Your task to perform on an android device: Show the shopping cart on ebay. Add macbook to the cart on ebay Image 0: 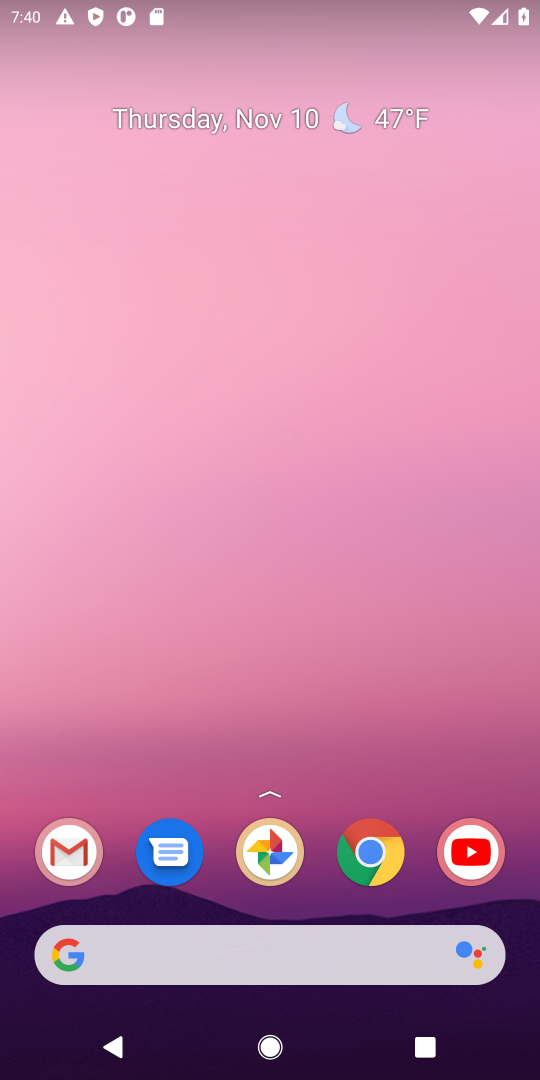
Step 0: click (382, 863)
Your task to perform on an android device: Show the shopping cart on ebay. Add macbook to the cart on ebay Image 1: 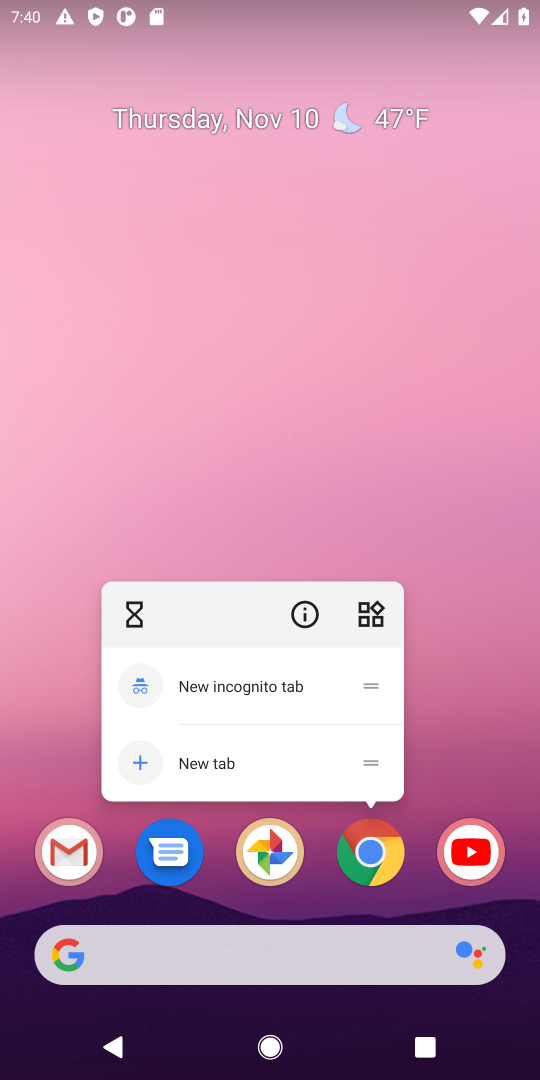
Step 1: click (372, 853)
Your task to perform on an android device: Show the shopping cart on ebay. Add macbook to the cart on ebay Image 2: 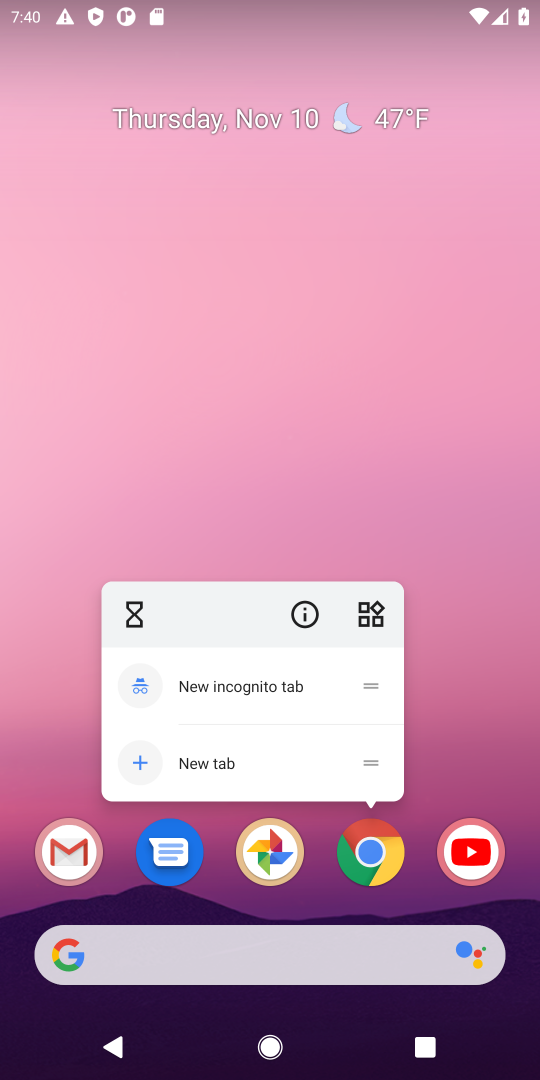
Step 2: click (365, 853)
Your task to perform on an android device: Show the shopping cart on ebay. Add macbook to the cart on ebay Image 3: 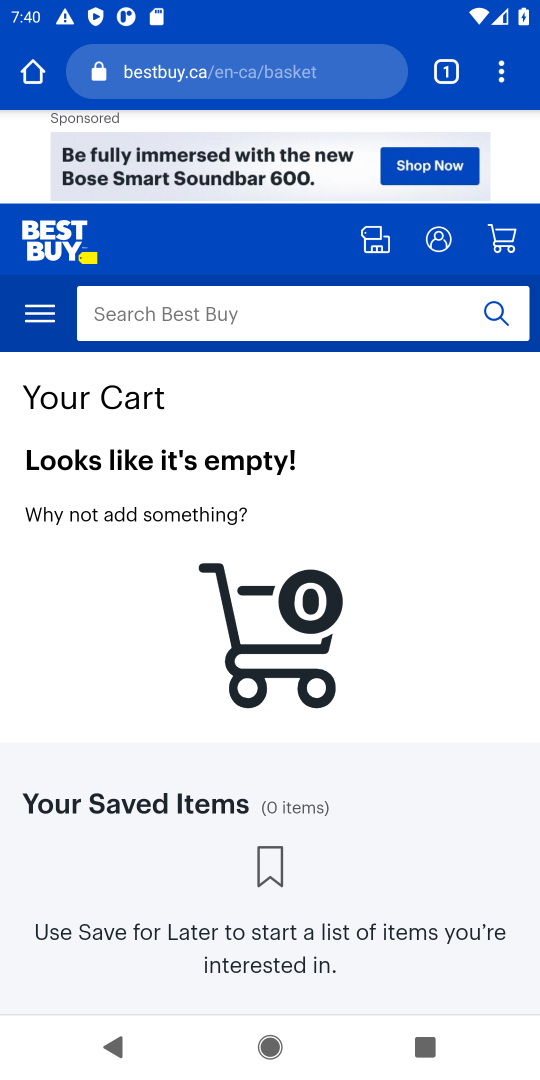
Step 3: click (314, 66)
Your task to perform on an android device: Show the shopping cart on ebay. Add macbook to the cart on ebay Image 4: 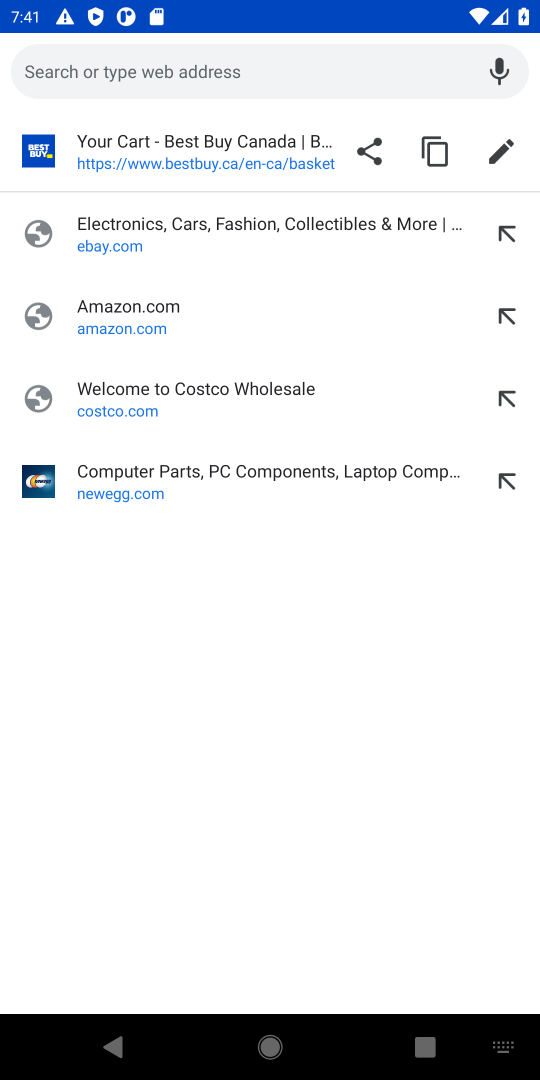
Step 4: type "ebay"
Your task to perform on an android device: Show the shopping cart on ebay. Add macbook to the cart on ebay Image 5: 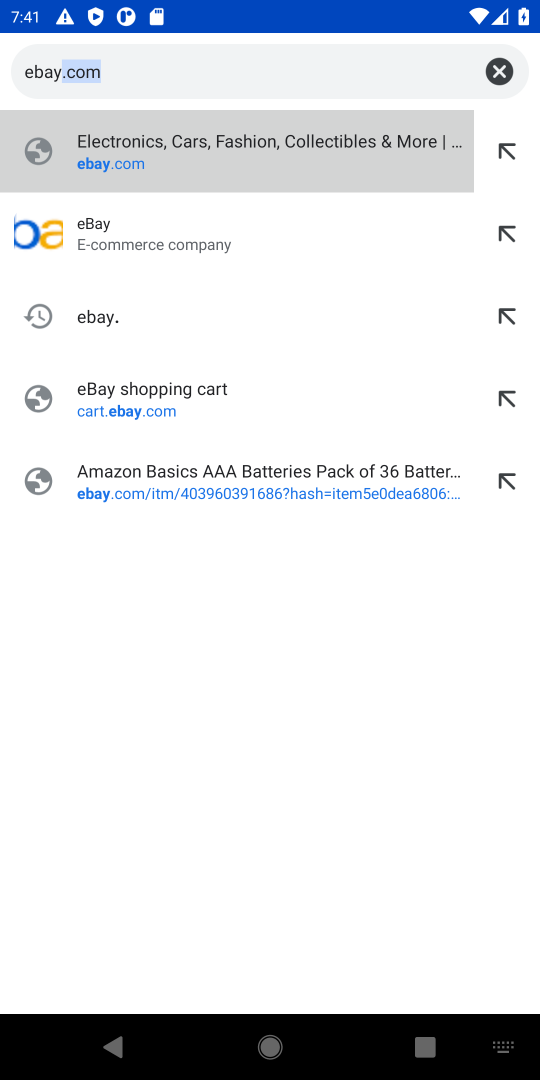
Step 5: press enter
Your task to perform on an android device: Show the shopping cart on ebay. Add macbook to the cart on ebay Image 6: 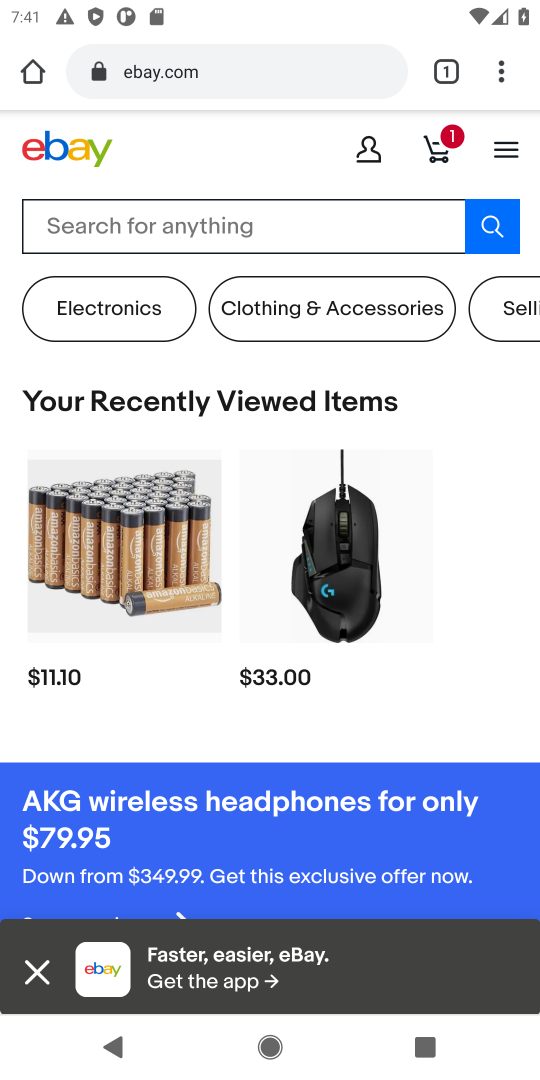
Step 6: click (234, 229)
Your task to perform on an android device: Show the shopping cart on ebay. Add macbook to the cart on ebay Image 7: 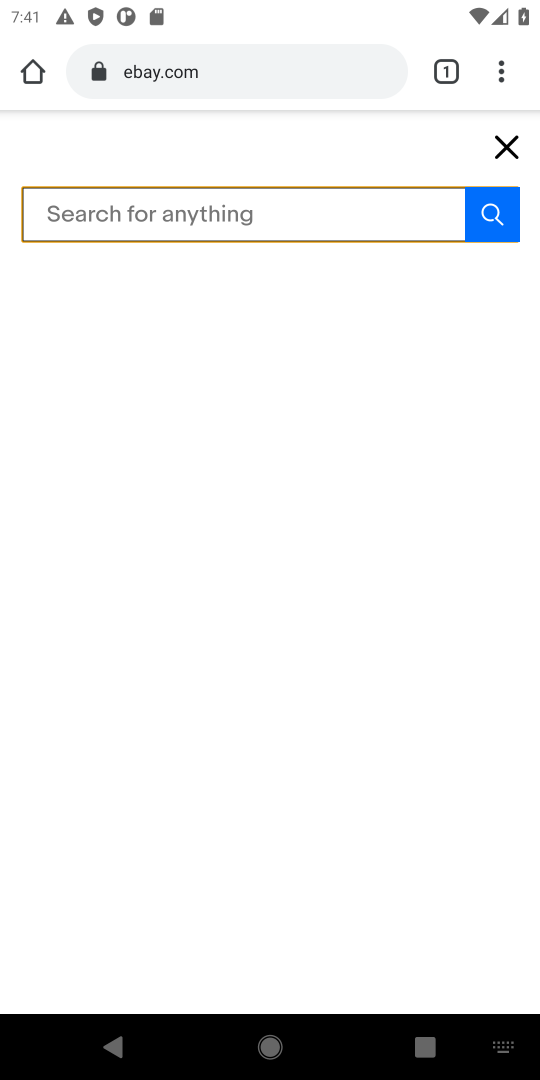
Step 7: type "macbook"
Your task to perform on an android device: Show the shopping cart on ebay. Add macbook to the cart on ebay Image 8: 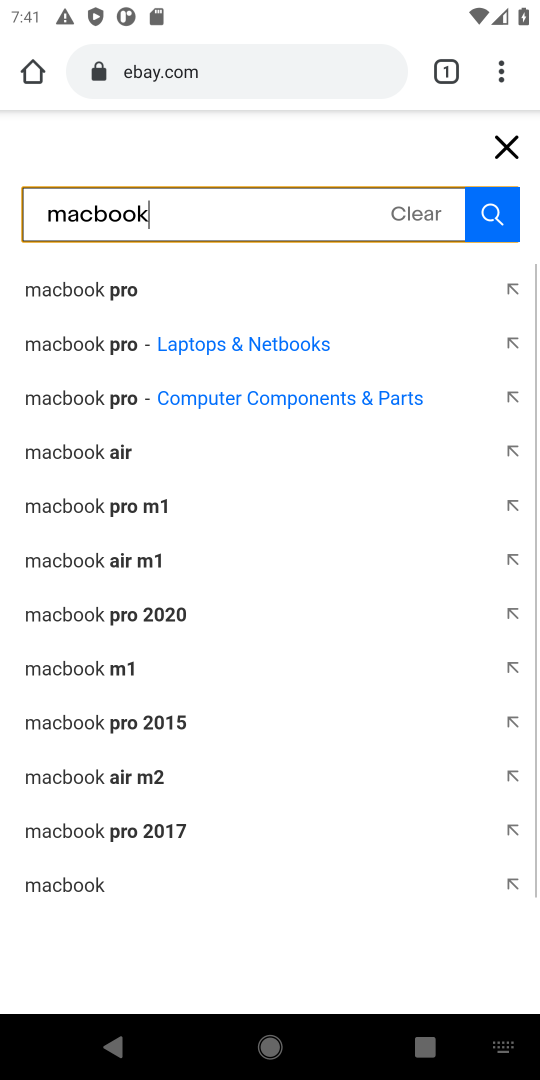
Step 8: press enter
Your task to perform on an android device: Show the shopping cart on ebay. Add macbook to the cart on ebay Image 9: 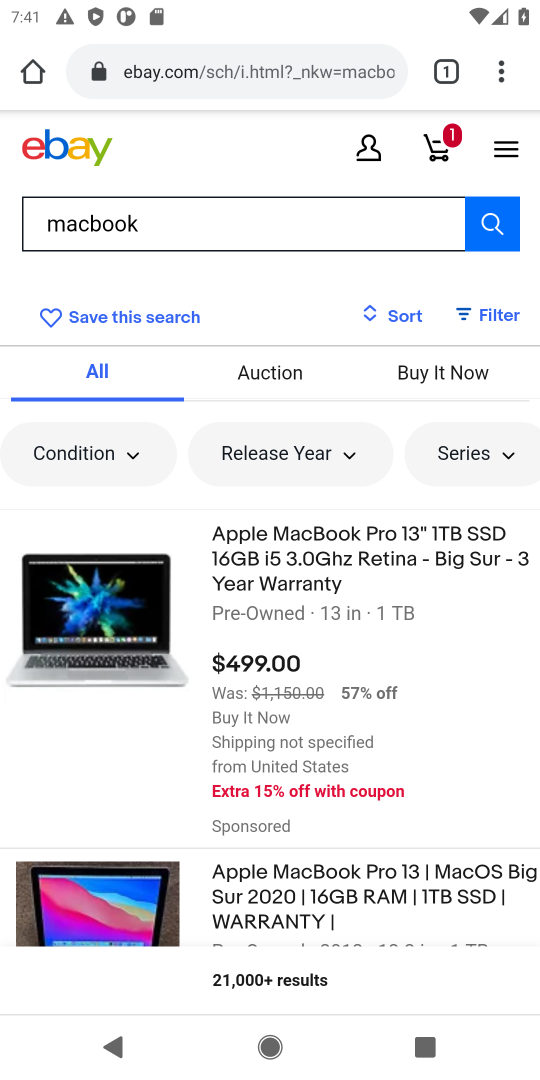
Step 9: click (342, 559)
Your task to perform on an android device: Show the shopping cart on ebay. Add macbook to the cart on ebay Image 10: 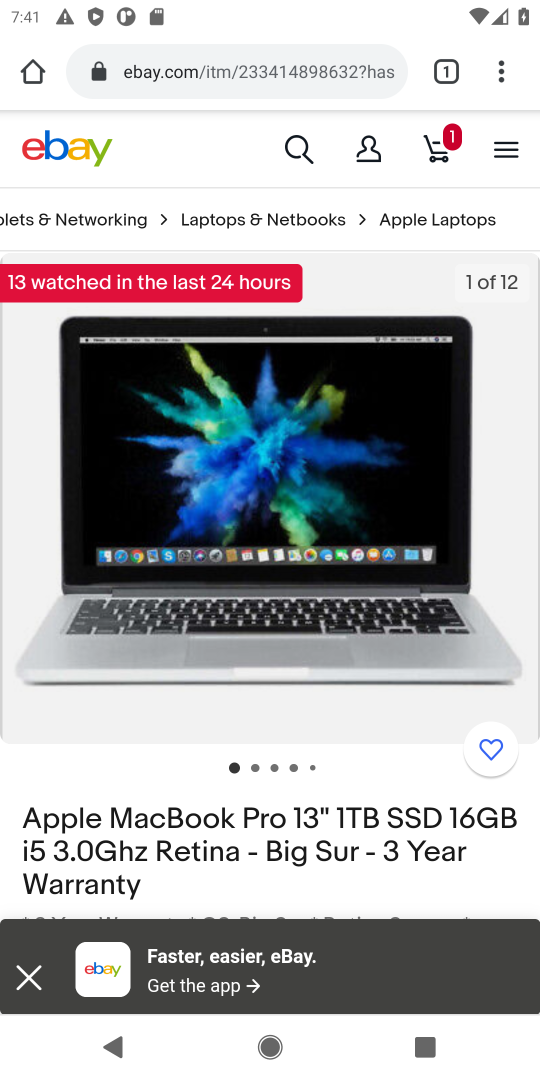
Step 10: click (472, 259)
Your task to perform on an android device: Show the shopping cart on ebay. Add macbook to the cart on ebay Image 11: 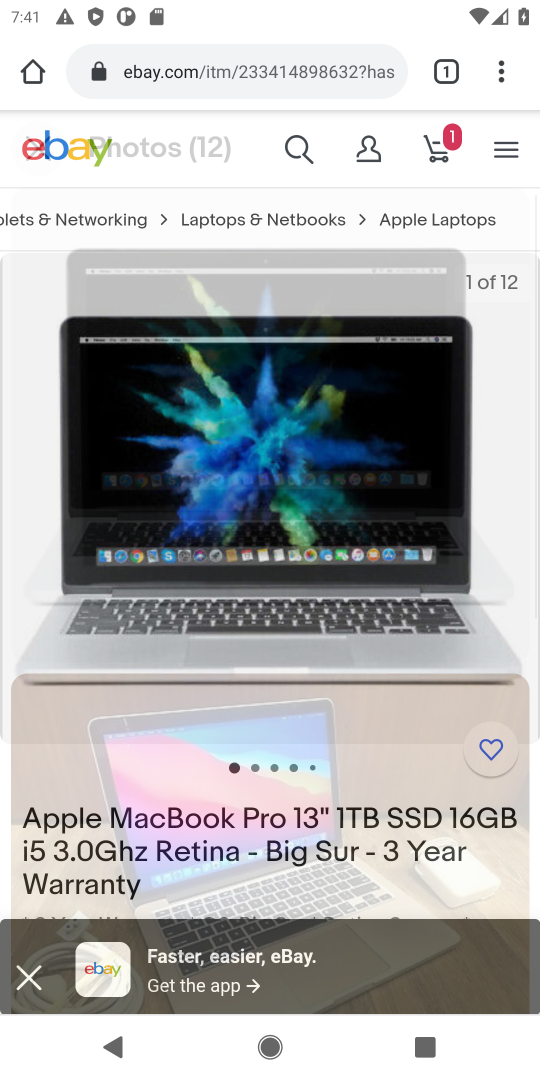
Step 11: drag from (338, 690) to (497, 214)
Your task to perform on an android device: Show the shopping cart on ebay. Add macbook to the cart on ebay Image 12: 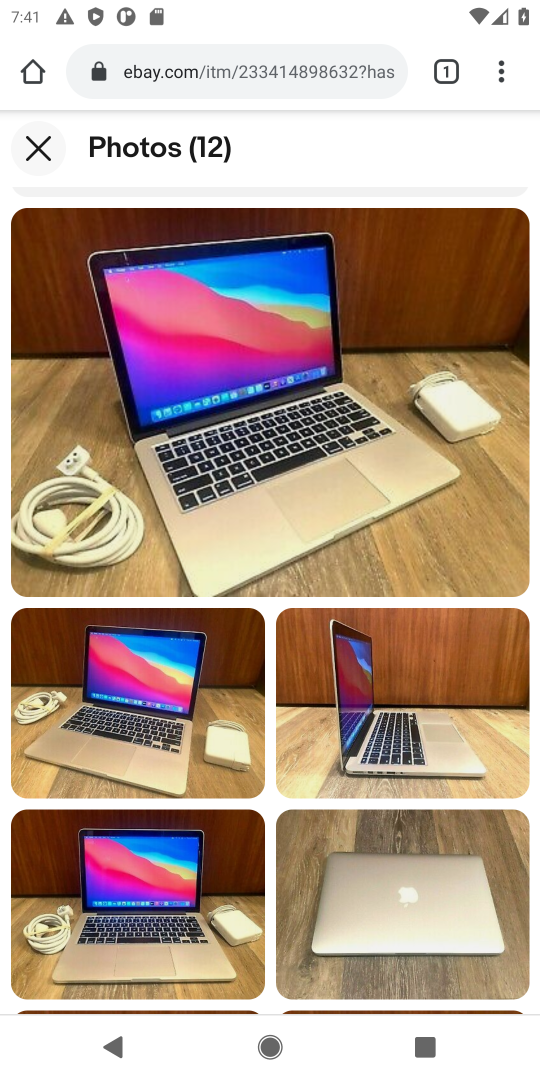
Step 12: drag from (353, 863) to (478, 92)
Your task to perform on an android device: Show the shopping cart on ebay. Add macbook to the cart on ebay Image 13: 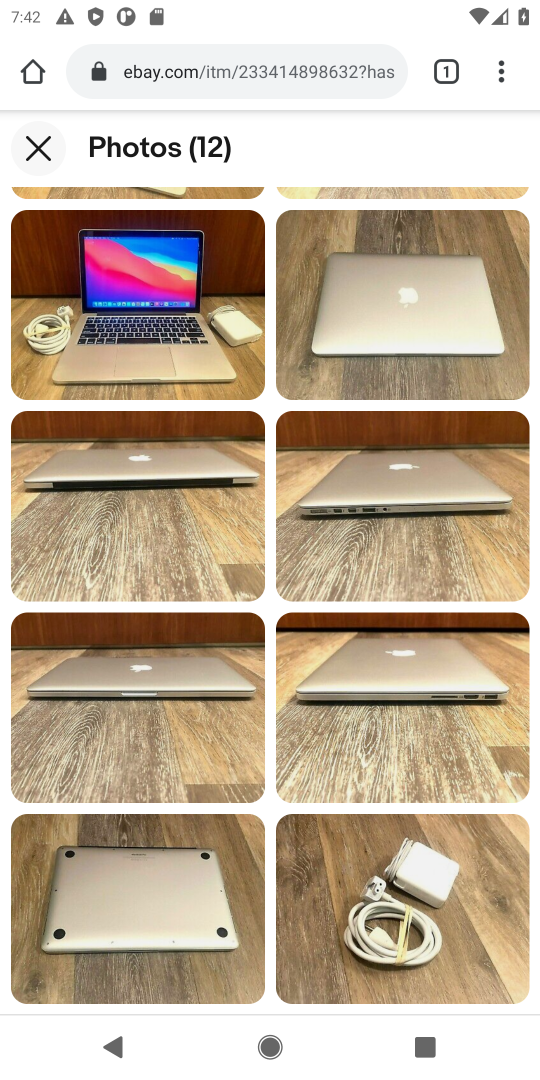
Step 13: click (43, 142)
Your task to perform on an android device: Show the shopping cart on ebay. Add macbook to the cart on ebay Image 14: 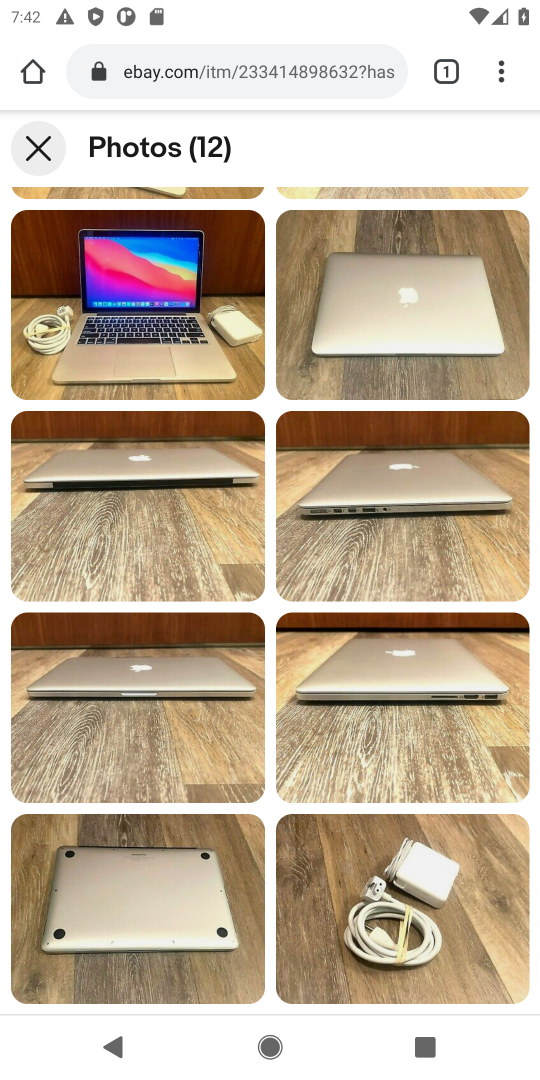
Step 14: click (42, 147)
Your task to perform on an android device: Show the shopping cart on ebay. Add macbook to the cart on ebay Image 15: 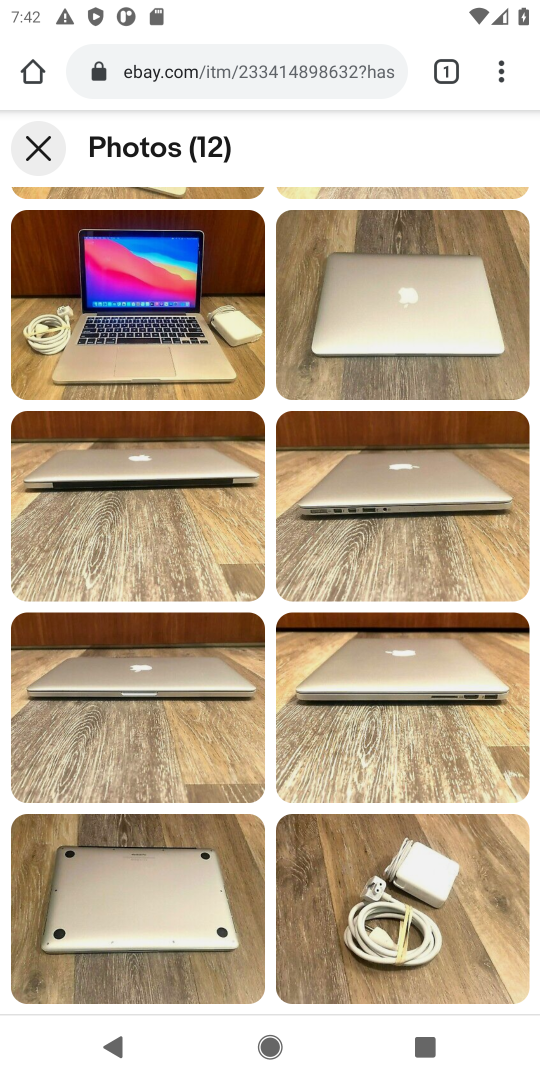
Step 15: drag from (403, 144) to (413, 867)
Your task to perform on an android device: Show the shopping cart on ebay. Add macbook to the cart on ebay Image 16: 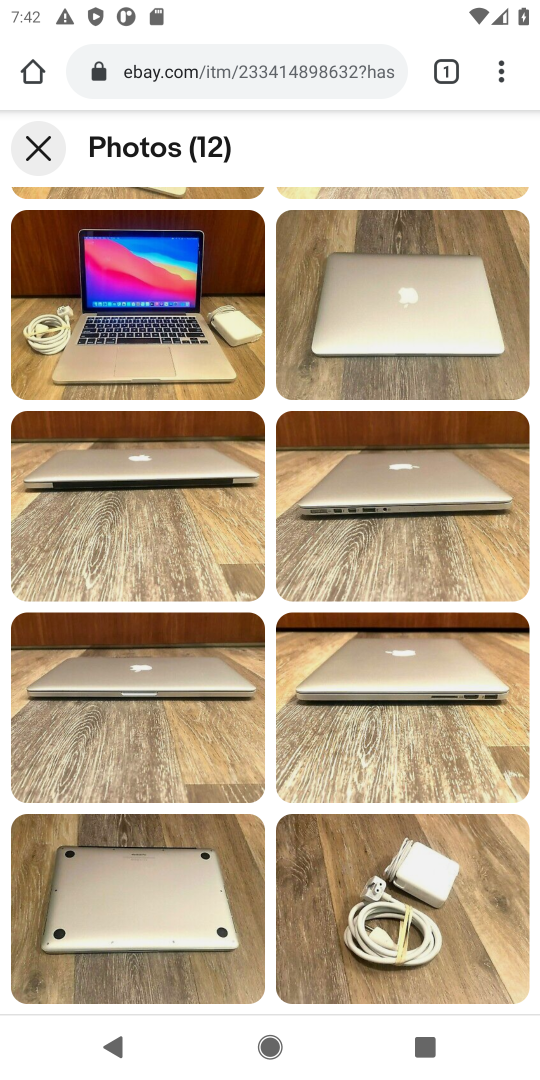
Step 16: press back button
Your task to perform on an android device: Show the shopping cart on ebay. Add macbook to the cart on ebay Image 17: 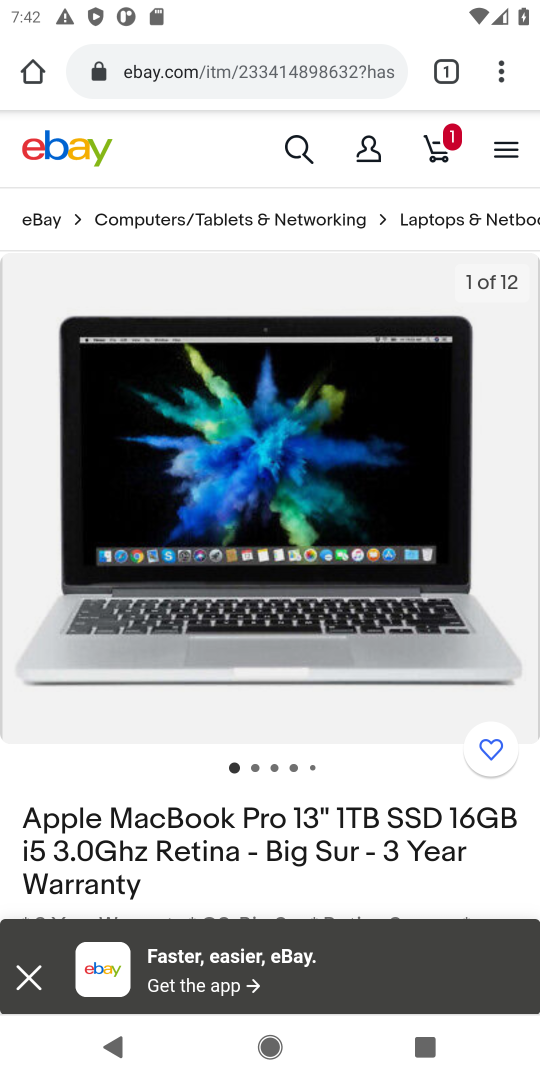
Step 17: drag from (252, 731) to (484, 96)
Your task to perform on an android device: Show the shopping cart on ebay. Add macbook to the cart on ebay Image 18: 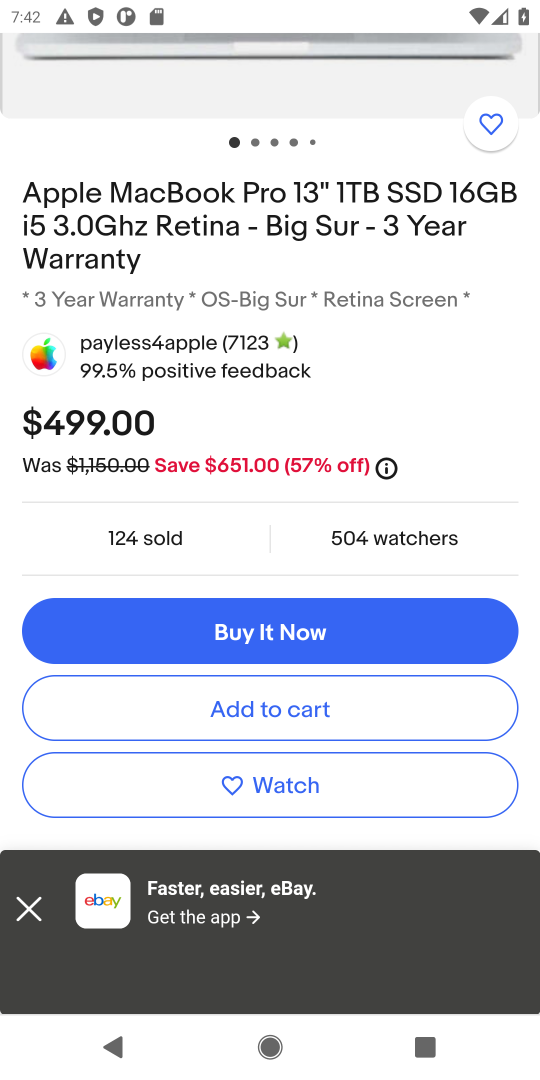
Step 18: click (300, 706)
Your task to perform on an android device: Show the shopping cart on ebay. Add macbook to the cart on ebay Image 19: 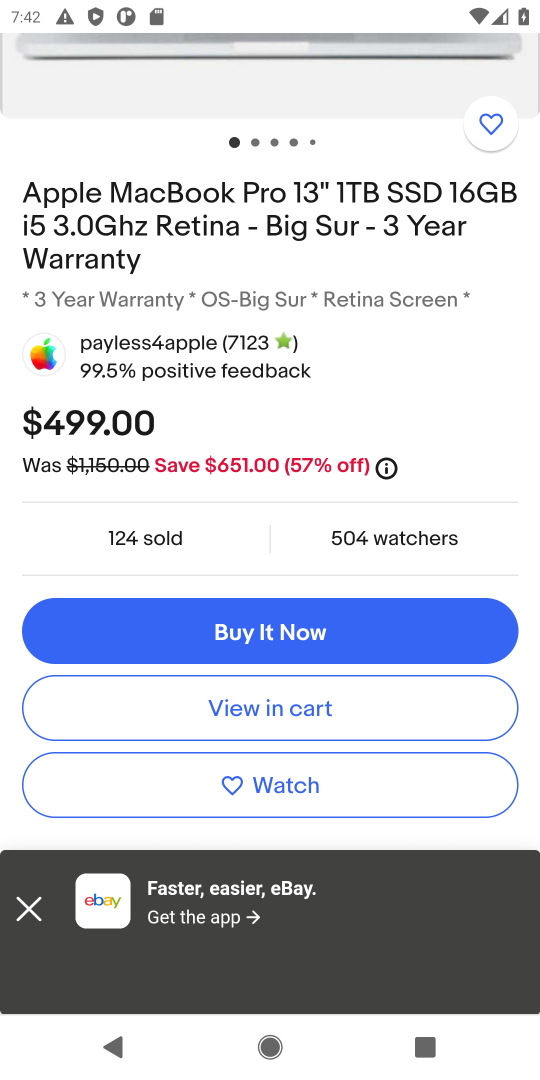
Step 19: click (305, 703)
Your task to perform on an android device: Show the shopping cart on ebay. Add macbook to the cart on ebay Image 20: 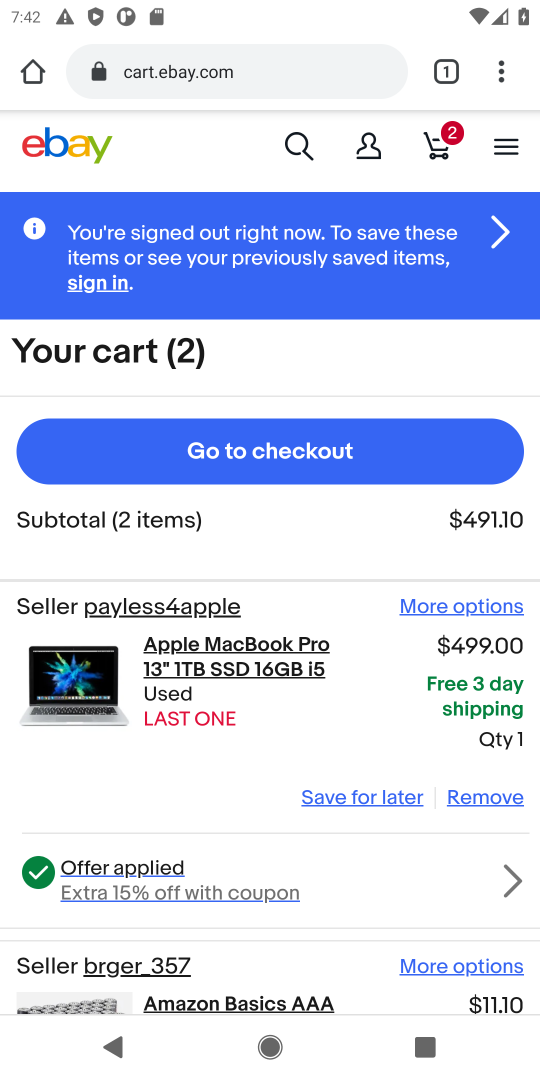
Step 20: task complete